Your task to perform on an android device: Turn off the flashlight Image 0: 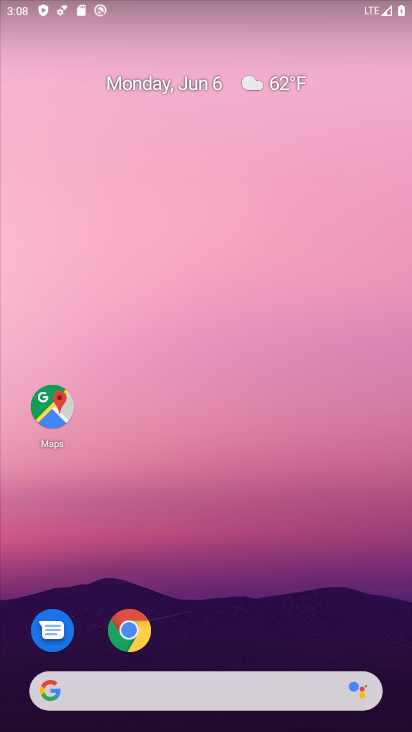
Step 0: drag from (210, 2) to (216, 718)
Your task to perform on an android device: Turn off the flashlight Image 1: 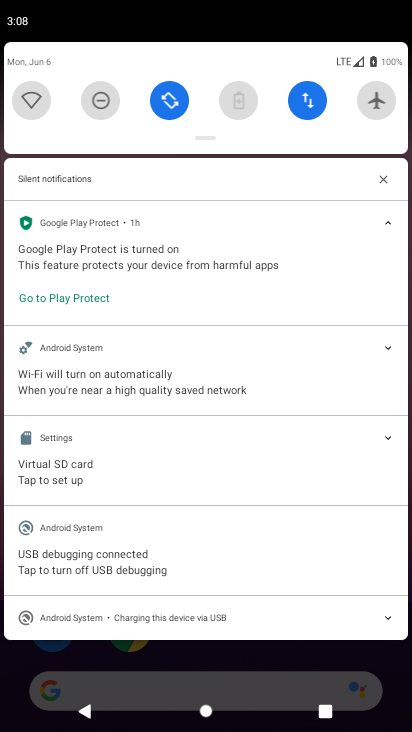
Step 1: task complete